Your task to perform on an android device: Open display settings Image 0: 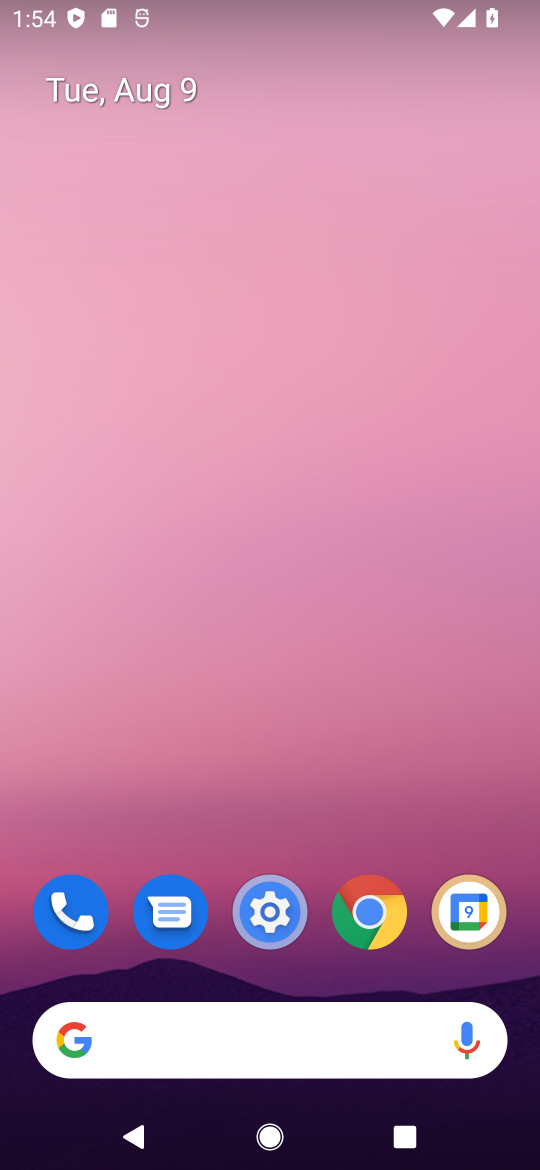
Step 0: click (271, 912)
Your task to perform on an android device: Open display settings Image 1: 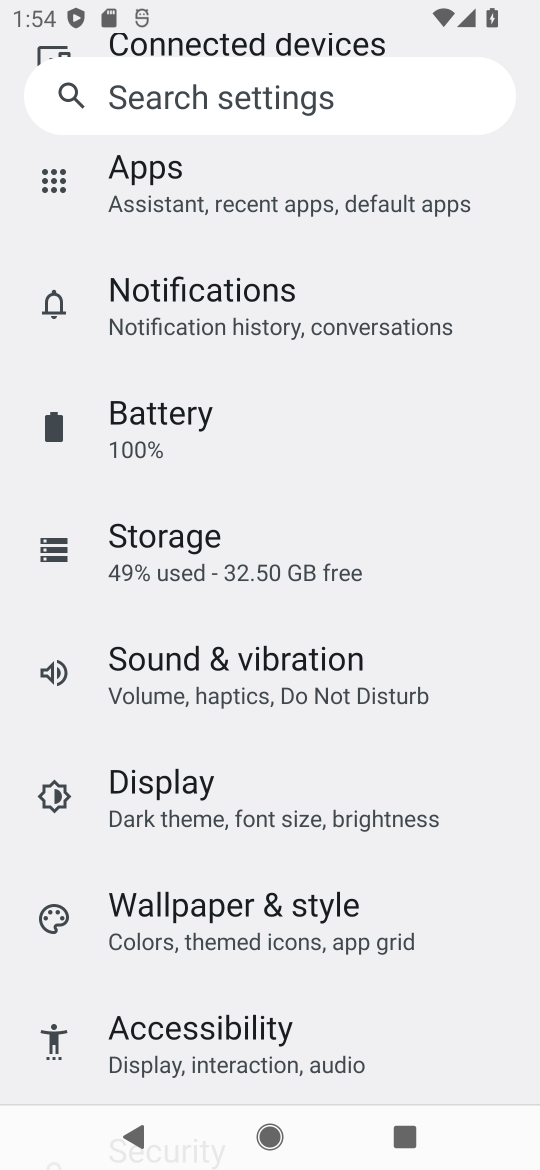
Step 1: drag from (338, 368) to (291, 834)
Your task to perform on an android device: Open display settings Image 2: 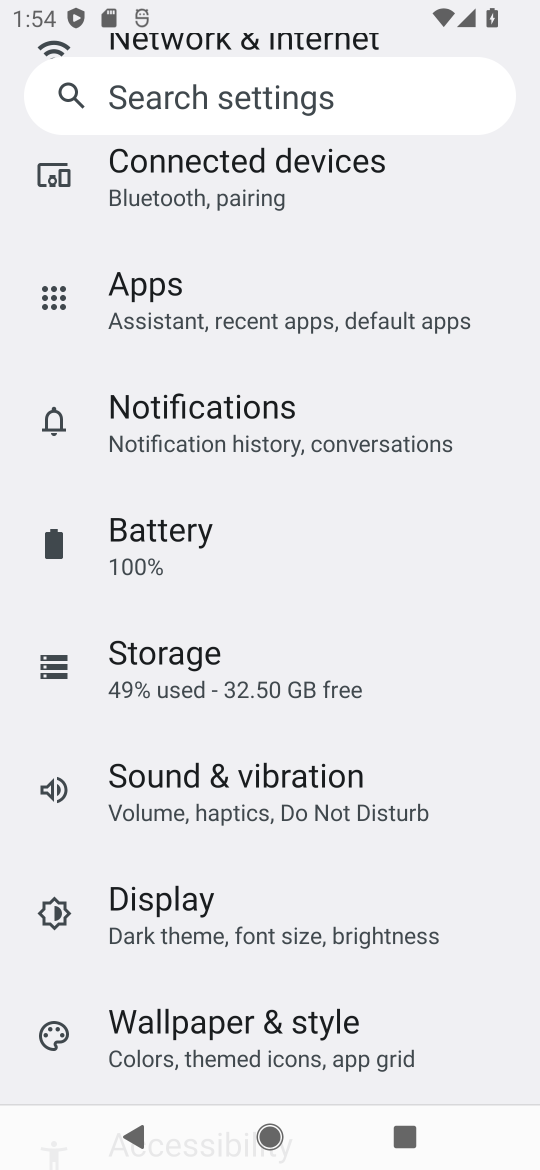
Step 2: click (177, 902)
Your task to perform on an android device: Open display settings Image 3: 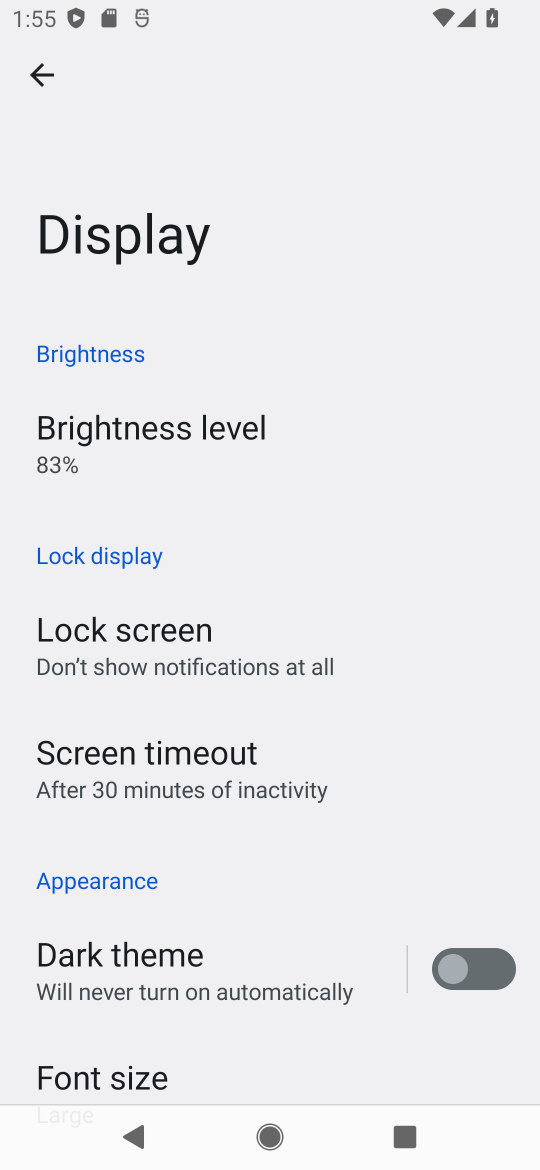
Step 3: task complete